Your task to perform on an android device: make emails show in primary in the gmail app Image 0: 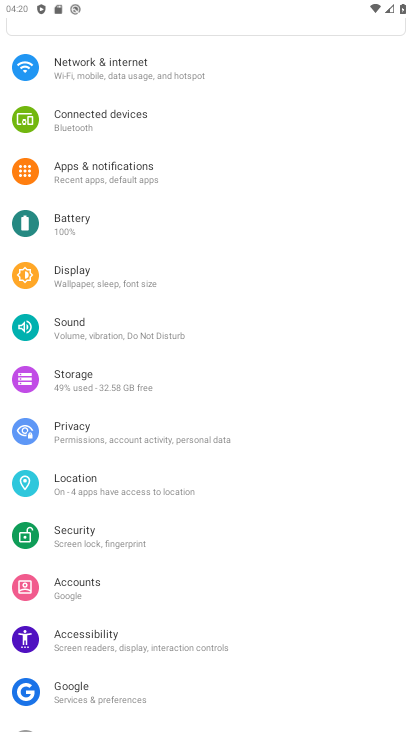
Step 0: press home button
Your task to perform on an android device: make emails show in primary in the gmail app Image 1: 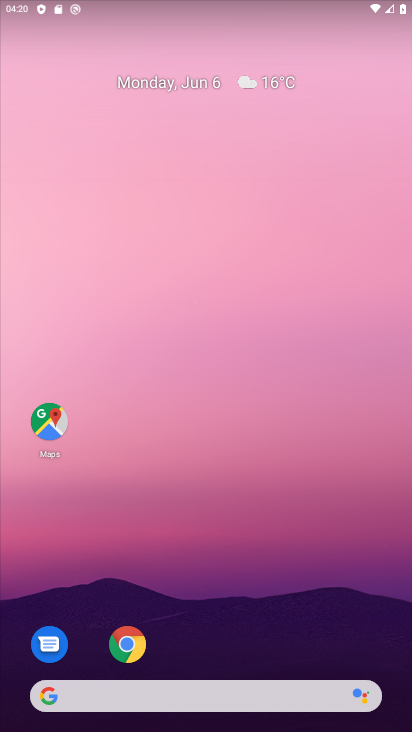
Step 1: drag from (397, 711) to (354, 165)
Your task to perform on an android device: make emails show in primary in the gmail app Image 2: 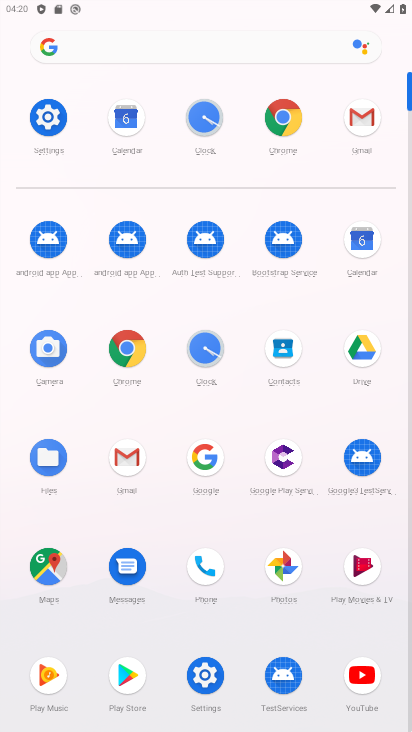
Step 2: click (127, 464)
Your task to perform on an android device: make emails show in primary in the gmail app Image 3: 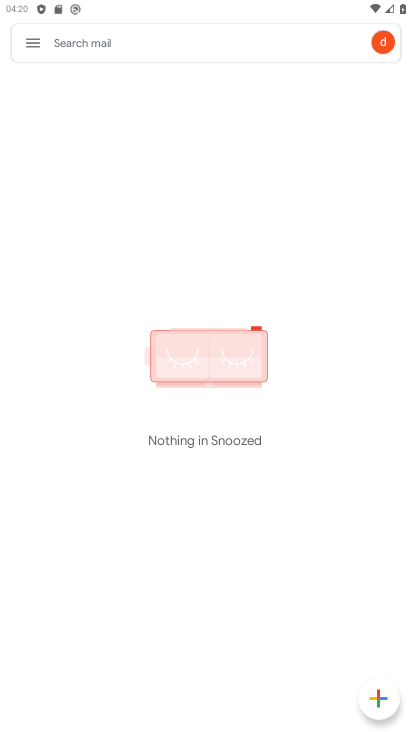
Step 3: click (31, 36)
Your task to perform on an android device: make emails show in primary in the gmail app Image 4: 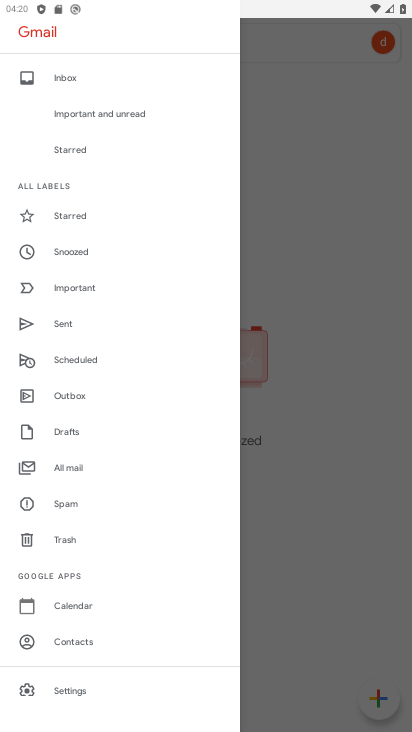
Step 4: click (77, 684)
Your task to perform on an android device: make emails show in primary in the gmail app Image 5: 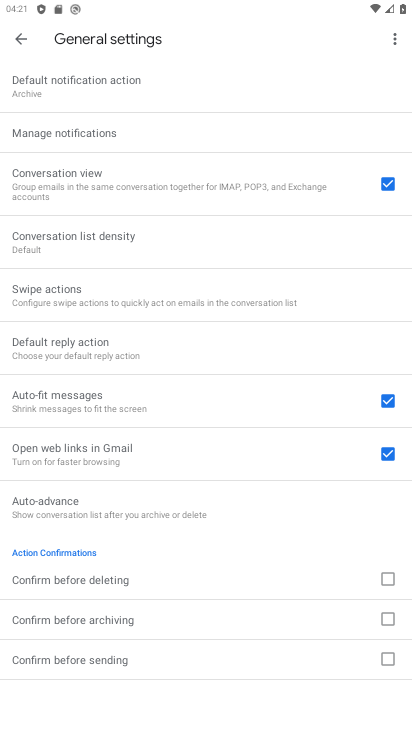
Step 5: click (23, 40)
Your task to perform on an android device: make emails show in primary in the gmail app Image 6: 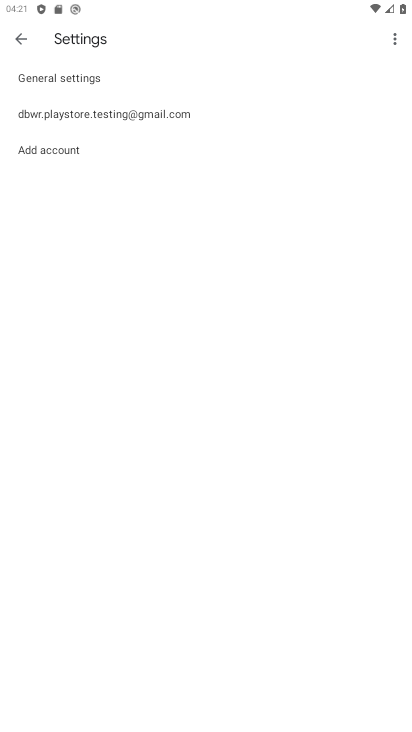
Step 6: click (52, 115)
Your task to perform on an android device: make emails show in primary in the gmail app Image 7: 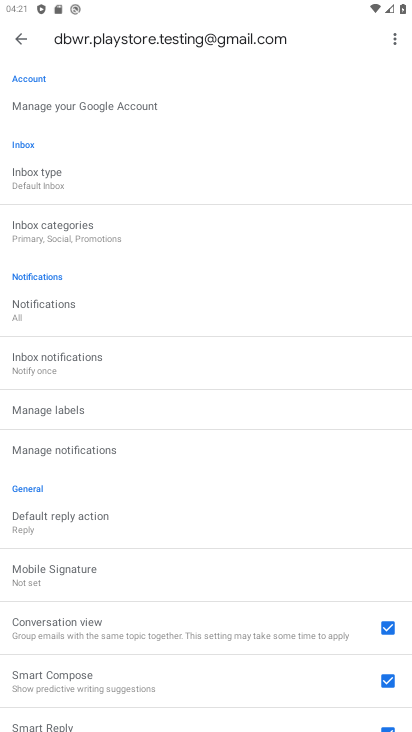
Step 7: click (47, 160)
Your task to perform on an android device: make emails show in primary in the gmail app Image 8: 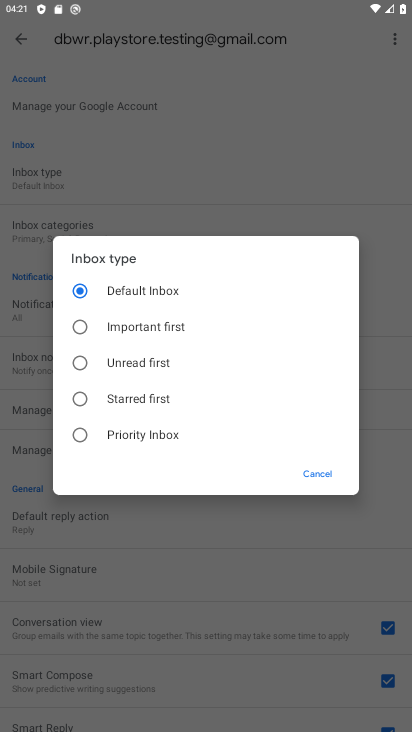
Step 8: click (62, 162)
Your task to perform on an android device: make emails show in primary in the gmail app Image 9: 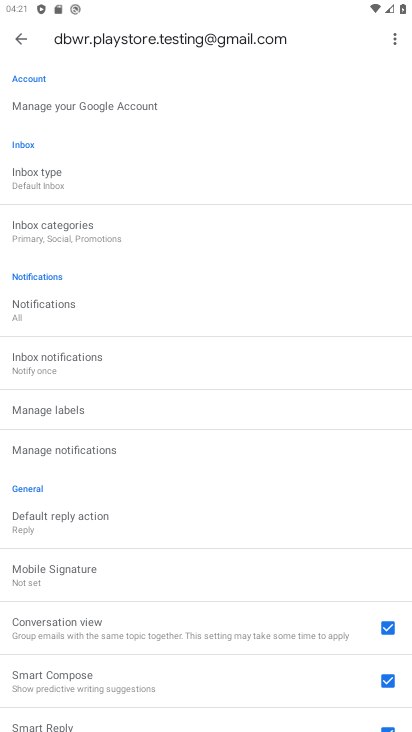
Step 9: click (40, 226)
Your task to perform on an android device: make emails show in primary in the gmail app Image 10: 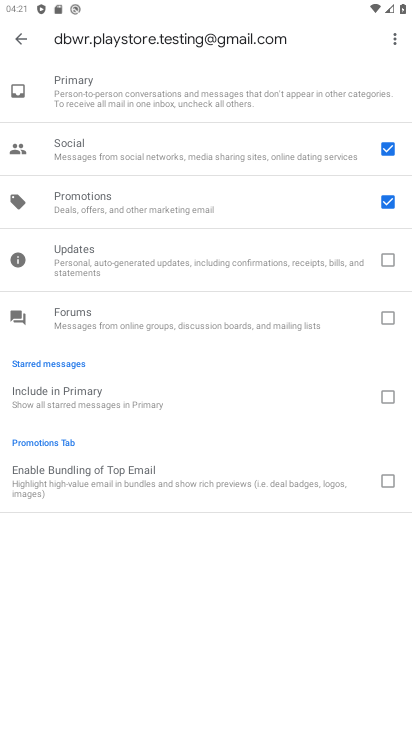
Step 10: click (382, 199)
Your task to perform on an android device: make emails show in primary in the gmail app Image 11: 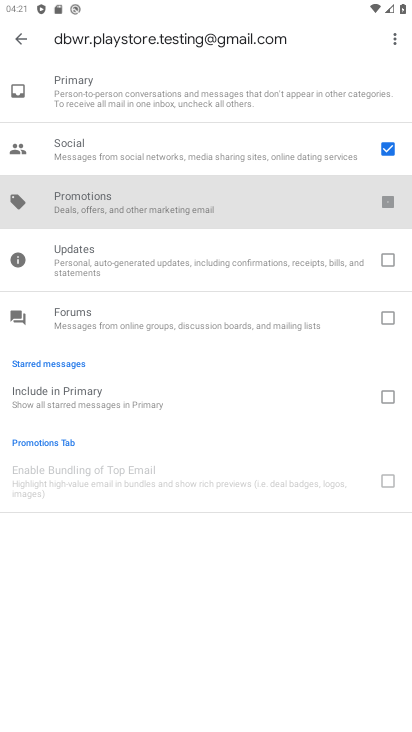
Step 11: click (381, 149)
Your task to perform on an android device: make emails show in primary in the gmail app Image 12: 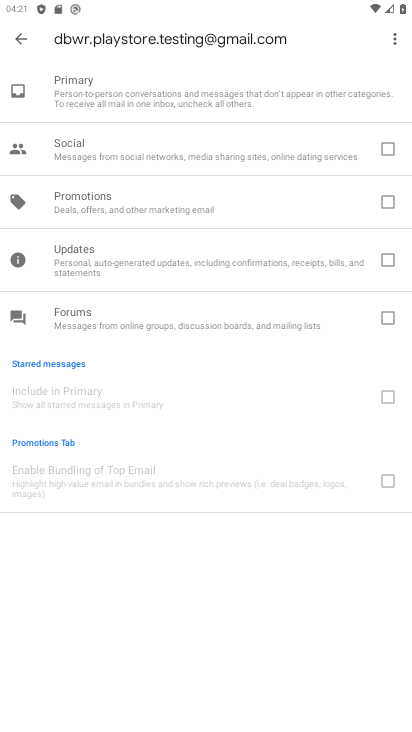
Step 12: task complete